Your task to perform on an android device: turn on showing notifications on the lock screen Image 0: 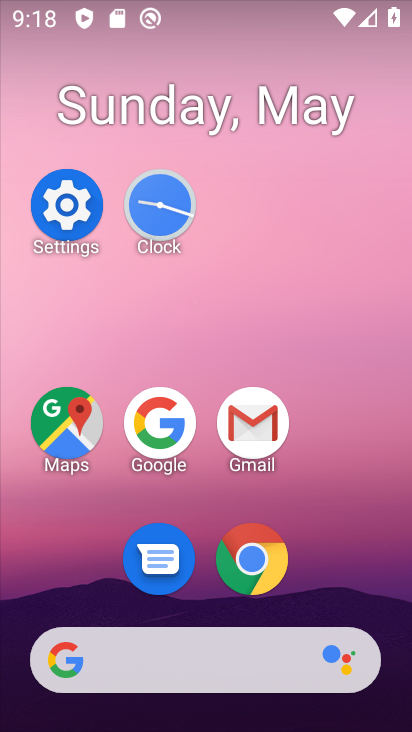
Step 0: click (55, 199)
Your task to perform on an android device: turn on showing notifications on the lock screen Image 1: 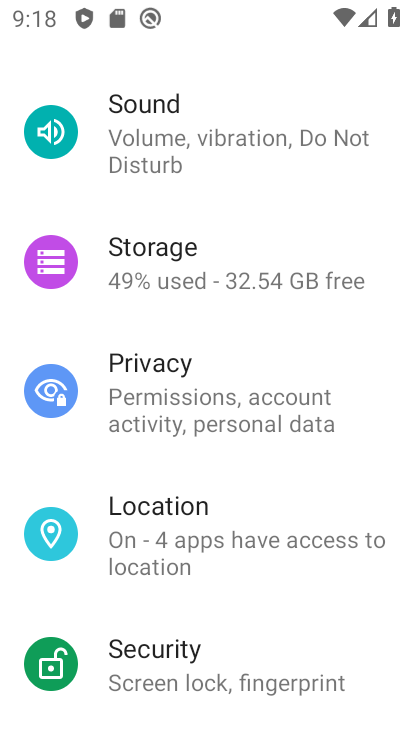
Step 1: drag from (239, 199) to (309, 698)
Your task to perform on an android device: turn on showing notifications on the lock screen Image 2: 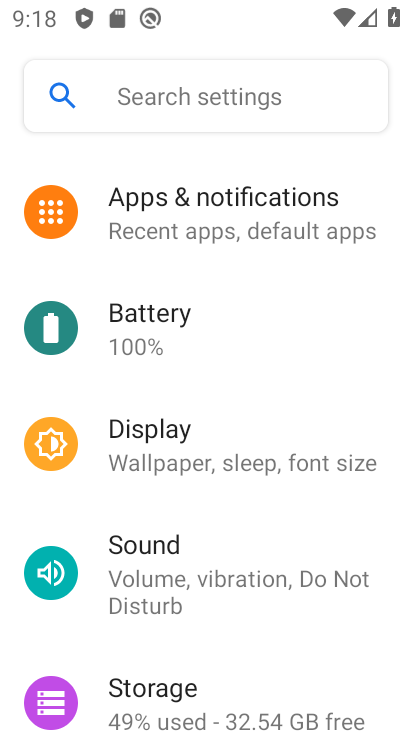
Step 2: click (277, 214)
Your task to perform on an android device: turn on showing notifications on the lock screen Image 3: 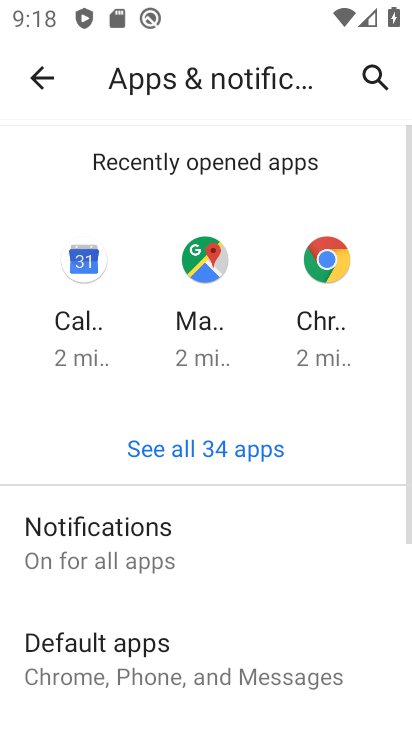
Step 3: click (223, 570)
Your task to perform on an android device: turn on showing notifications on the lock screen Image 4: 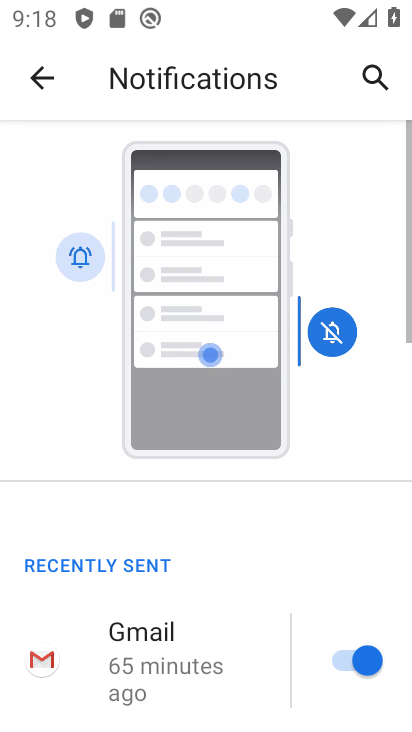
Step 4: drag from (223, 570) to (181, 241)
Your task to perform on an android device: turn on showing notifications on the lock screen Image 5: 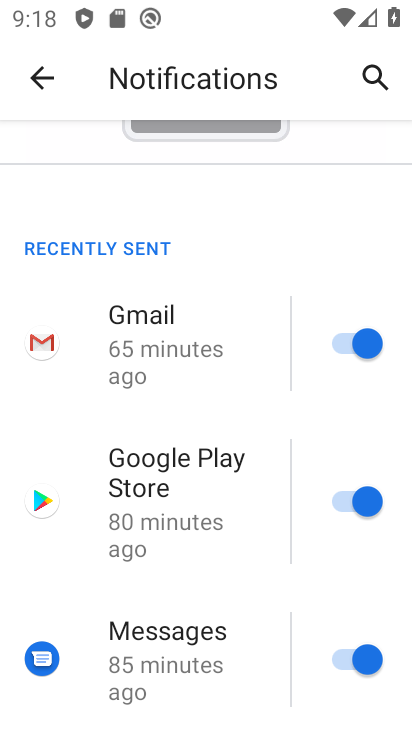
Step 5: drag from (232, 591) to (209, 294)
Your task to perform on an android device: turn on showing notifications on the lock screen Image 6: 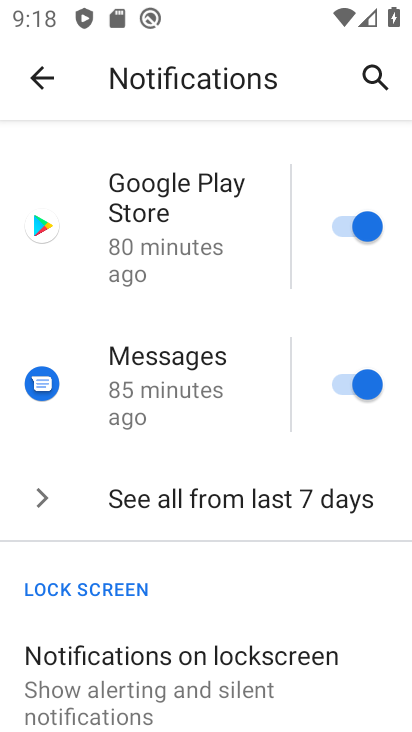
Step 6: click (99, 662)
Your task to perform on an android device: turn on showing notifications on the lock screen Image 7: 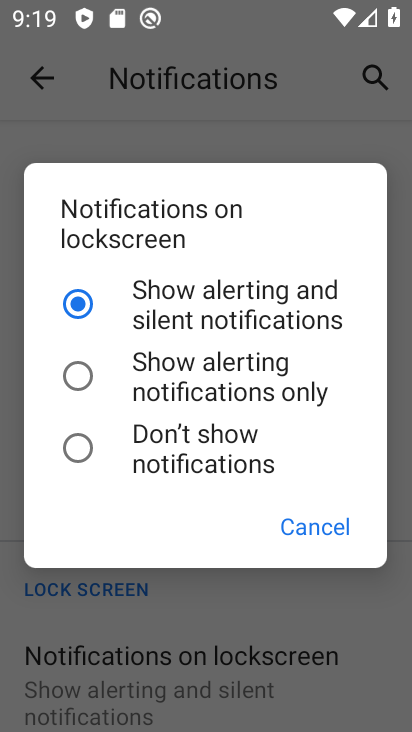
Step 7: task complete